Your task to perform on an android device: turn on the 24-hour format for clock Image 0: 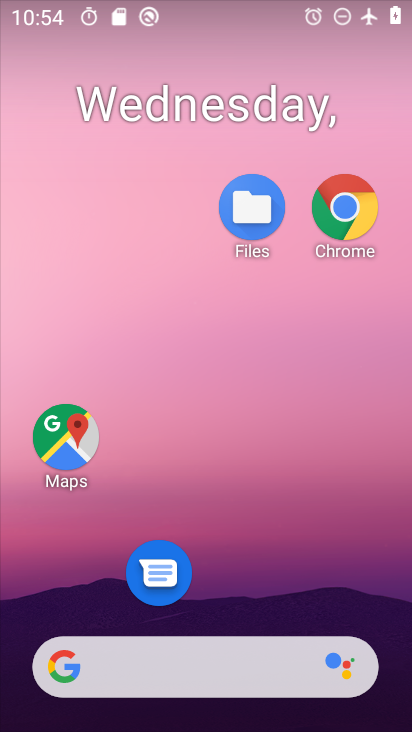
Step 0: drag from (285, 633) to (277, 184)
Your task to perform on an android device: turn on the 24-hour format for clock Image 1: 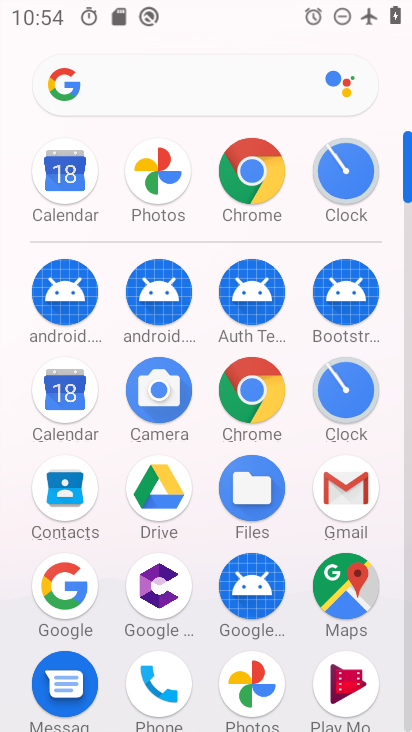
Step 1: click (359, 403)
Your task to perform on an android device: turn on the 24-hour format for clock Image 2: 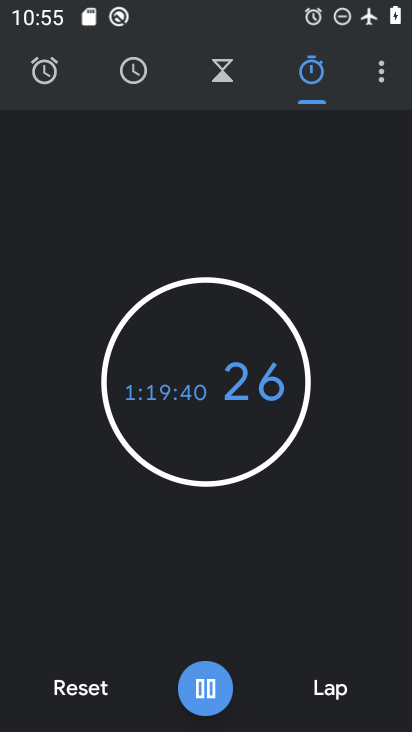
Step 2: click (389, 86)
Your task to perform on an android device: turn on the 24-hour format for clock Image 3: 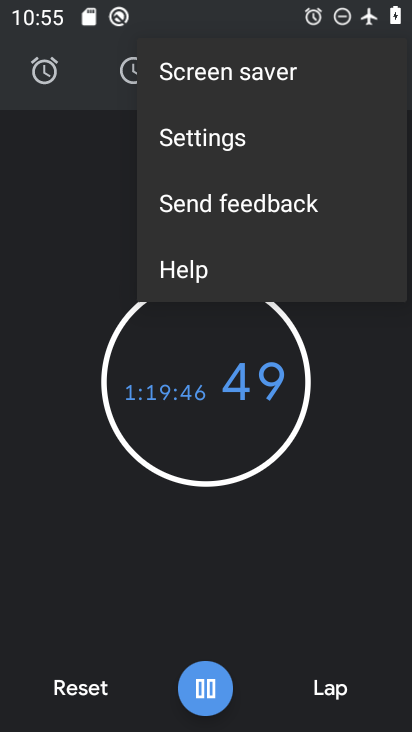
Step 3: click (243, 140)
Your task to perform on an android device: turn on the 24-hour format for clock Image 4: 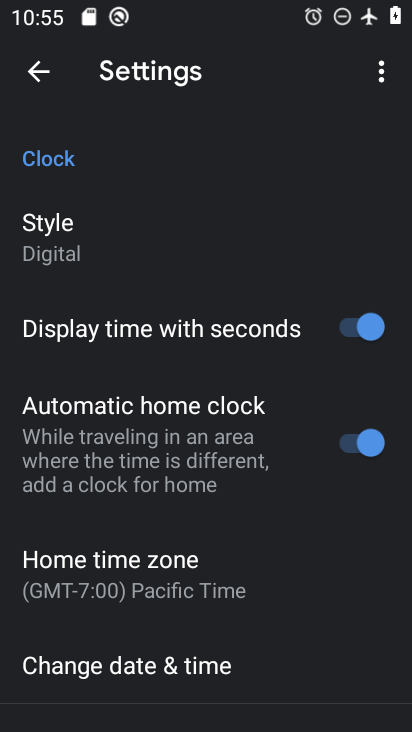
Step 4: click (205, 656)
Your task to perform on an android device: turn on the 24-hour format for clock Image 5: 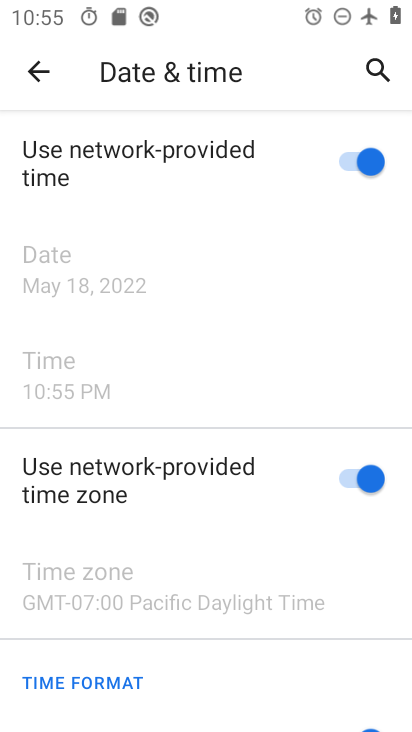
Step 5: task complete